Your task to perform on an android device: Open accessibility settings Image 0: 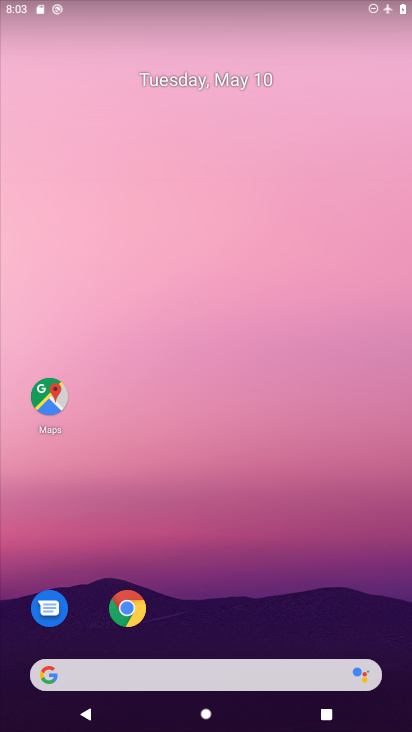
Step 0: drag from (254, 618) to (284, 325)
Your task to perform on an android device: Open accessibility settings Image 1: 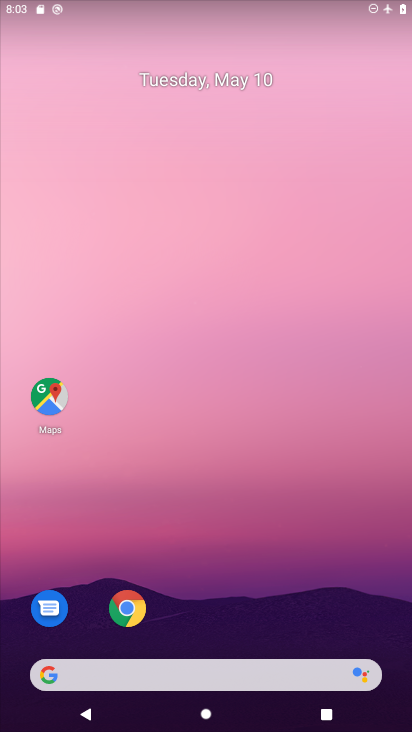
Step 1: drag from (276, 593) to (294, 253)
Your task to perform on an android device: Open accessibility settings Image 2: 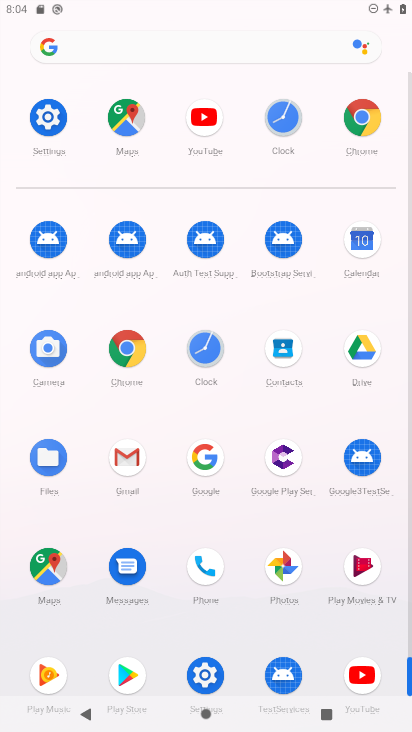
Step 2: click (45, 120)
Your task to perform on an android device: Open accessibility settings Image 3: 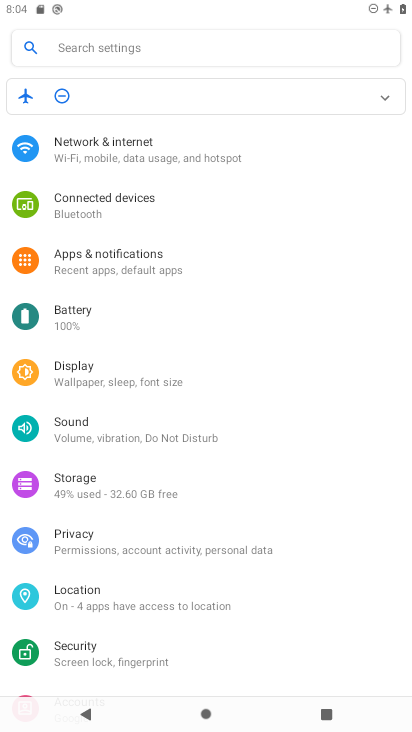
Step 3: drag from (145, 621) to (174, 258)
Your task to perform on an android device: Open accessibility settings Image 4: 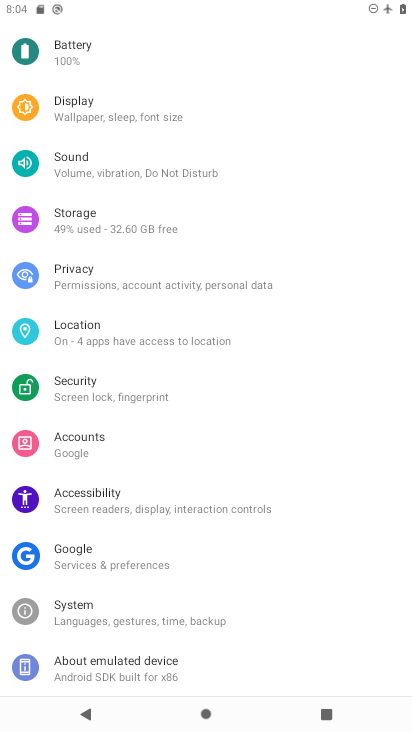
Step 4: click (112, 499)
Your task to perform on an android device: Open accessibility settings Image 5: 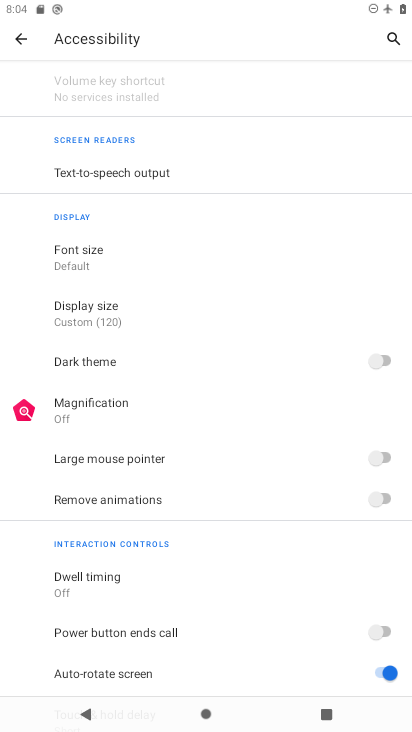
Step 5: task complete